Your task to perform on an android device: Open maps Image 0: 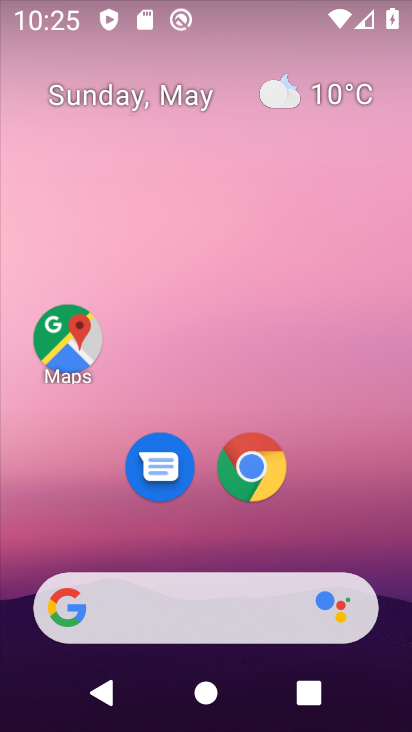
Step 0: click (71, 331)
Your task to perform on an android device: Open maps Image 1: 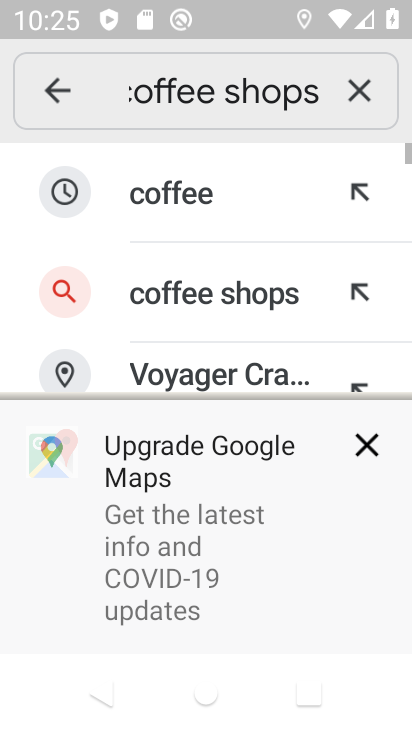
Step 1: task complete